Your task to perform on an android device: Go to Reddit.com Image 0: 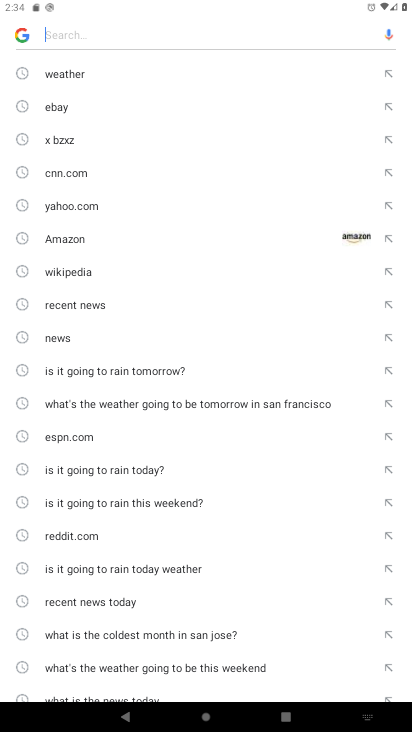
Step 0: press home button
Your task to perform on an android device: Go to Reddit.com Image 1: 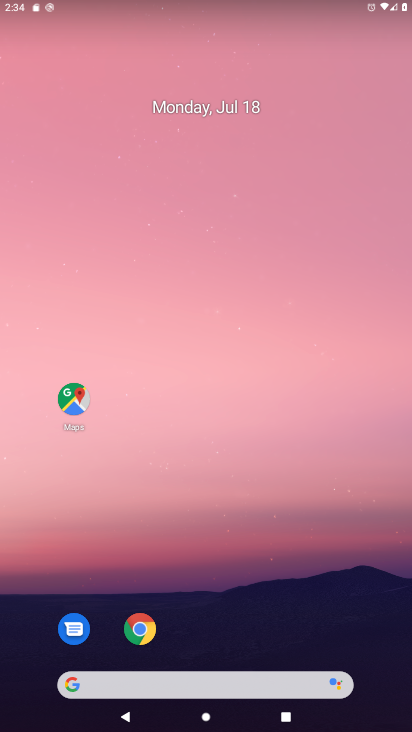
Step 1: click (136, 628)
Your task to perform on an android device: Go to Reddit.com Image 2: 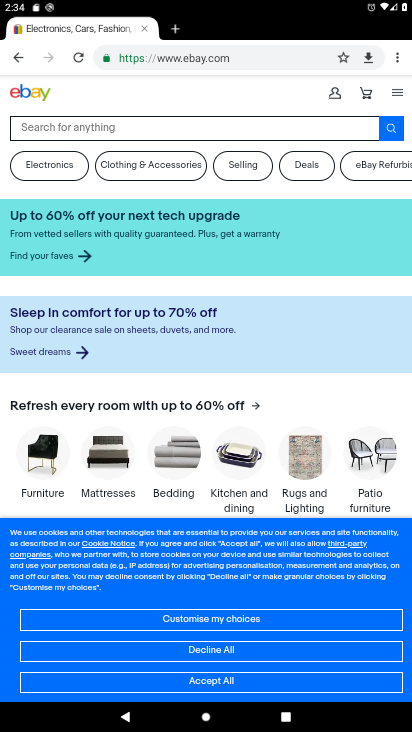
Step 2: click (154, 51)
Your task to perform on an android device: Go to Reddit.com Image 3: 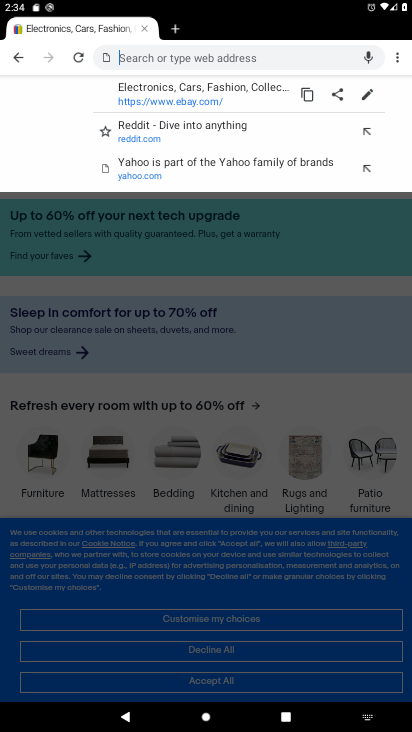
Step 3: click (150, 134)
Your task to perform on an android device: Go to Reddit.com Image 4: 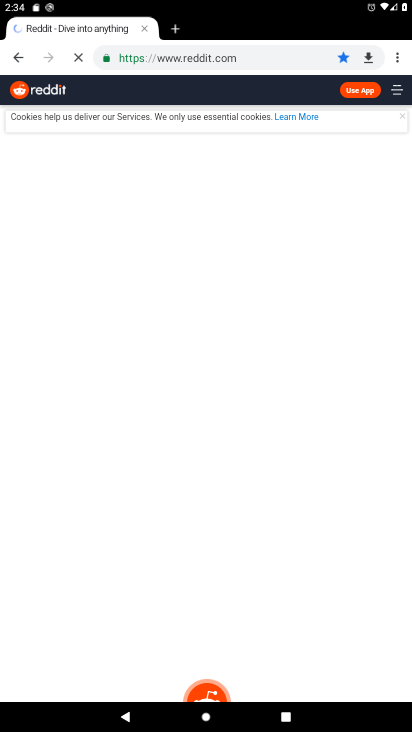
Step 4: task complete